Your task to perform on an android device: turn on notifications settings in the gmail app Image 0: 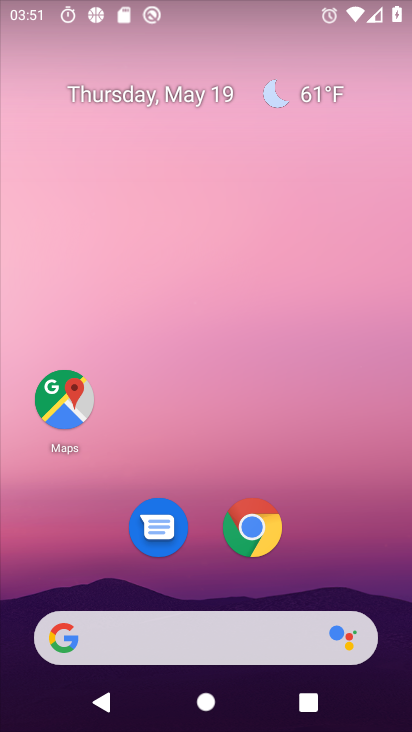
Step 0: drag from (206, 545) to (282, 40)
Your task to perform on an android device: turn on notifications settings in the gmail app Image 1: 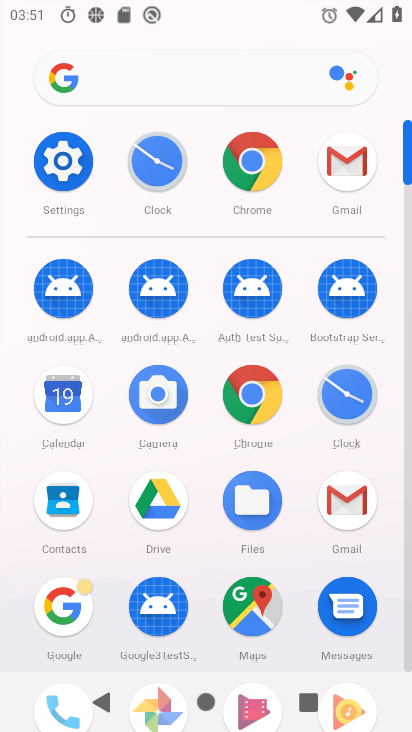
Step 1: click (351, 159)
Your task to perform on an android device: turn on notifications settings in the gmail app Image 2: 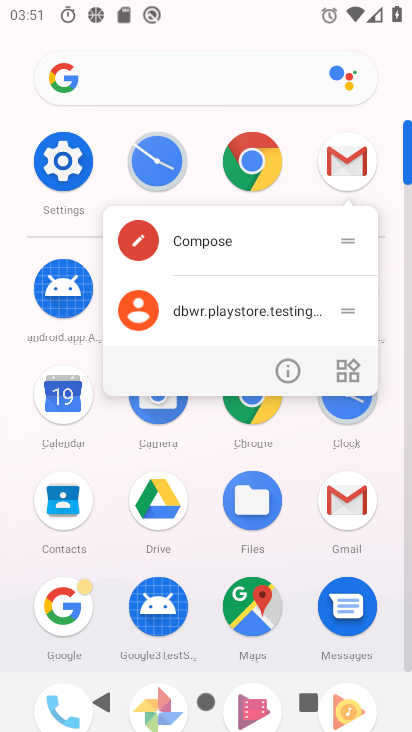
Step 2: click (295, 364)
Your task to perform on an android device: turn on notifications settings in the gmail app Image 3: 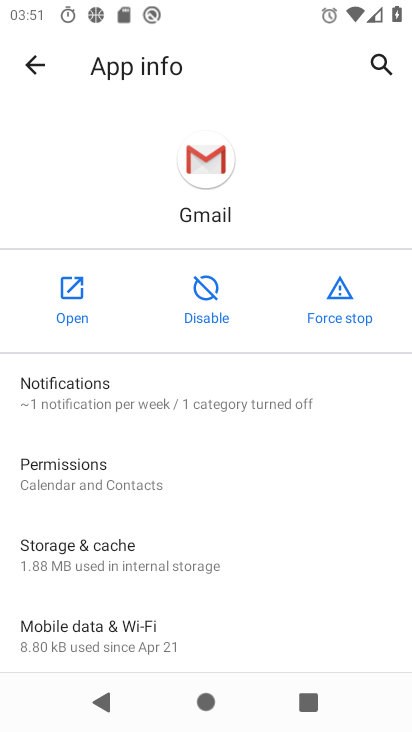
Step 3: click (232, 395)
Your task to perform on an android device: turn on notifications settings in the gmail app Image 4: 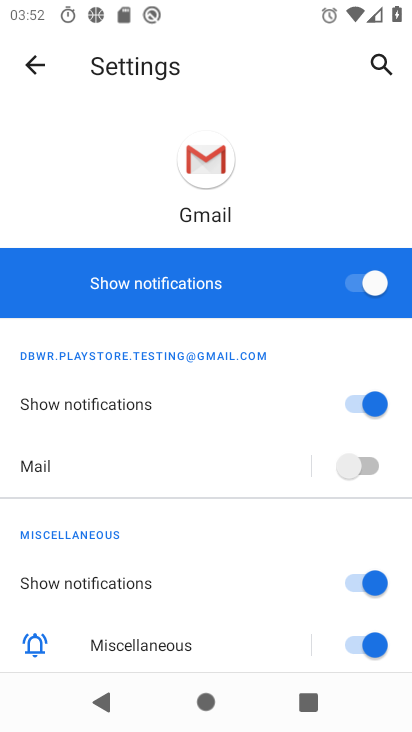
Step 4: task complete